Your task to perform on an android device: What is the recent news? Image 0: 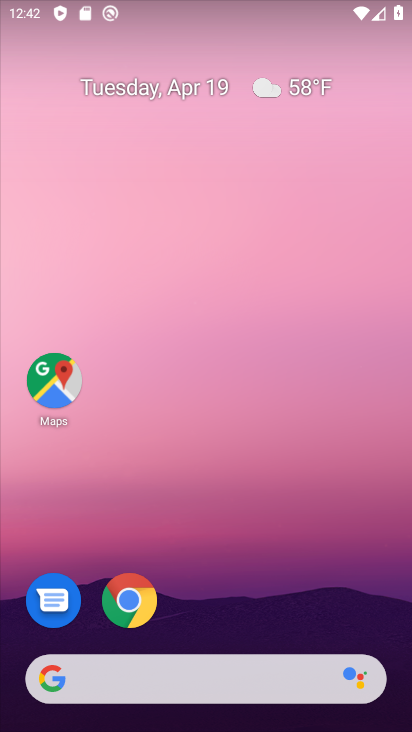
Step 0: click (132, 596)
Your task to perform on an android device: What is the recent news? Image 1: 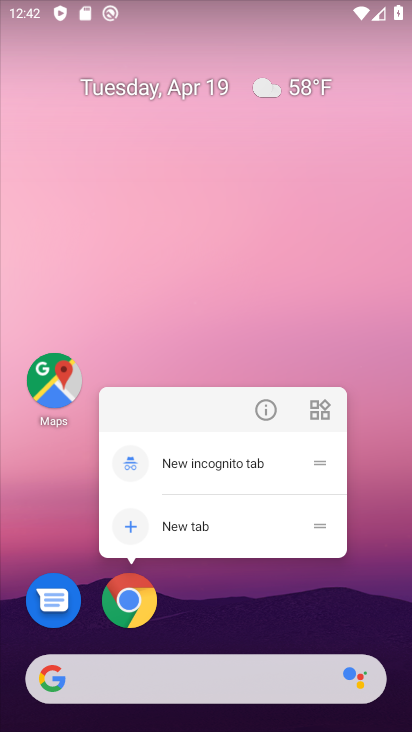
Step 1: drag from (392, 566) to (269, 154)
Your task to perform on an android device: What is the recent news? Image 2: 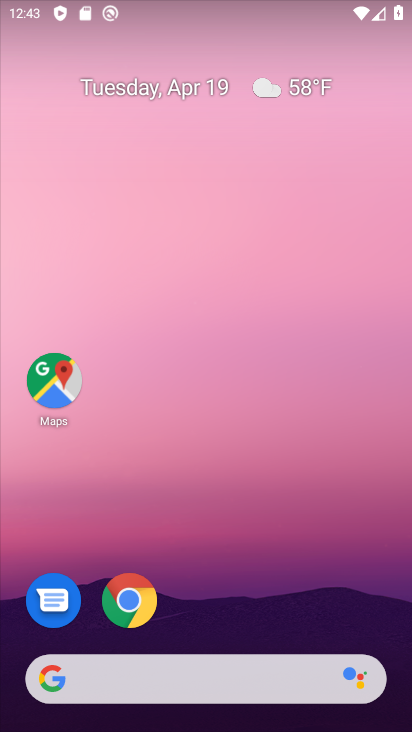
Step 2: drag from (344, 617) to (325, 150)
Your task to perform on an android device: What is the recent news? Image 3: 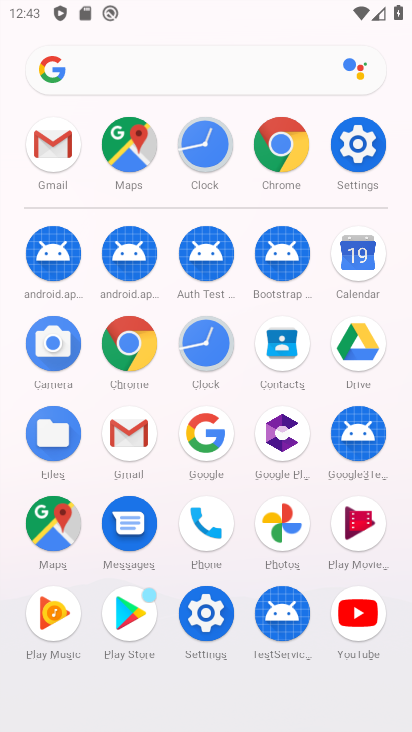
Step 3: click (284, 151)
Your task to perform on an android device: What is the recent news? Image 4: 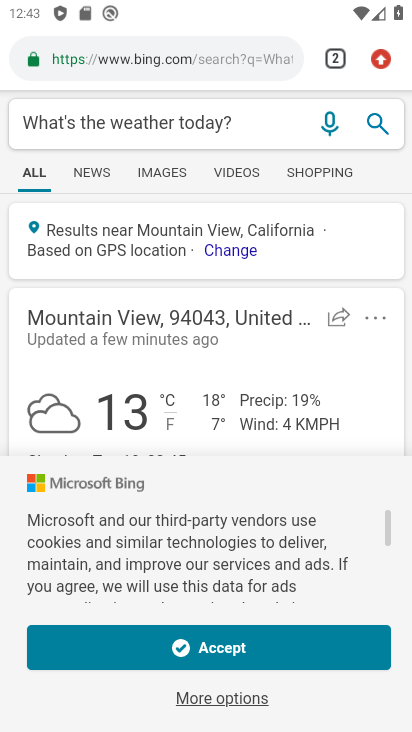
Step 4: click (257, 133)
Your task to perform on an android device: What is the recent news? Image 5: 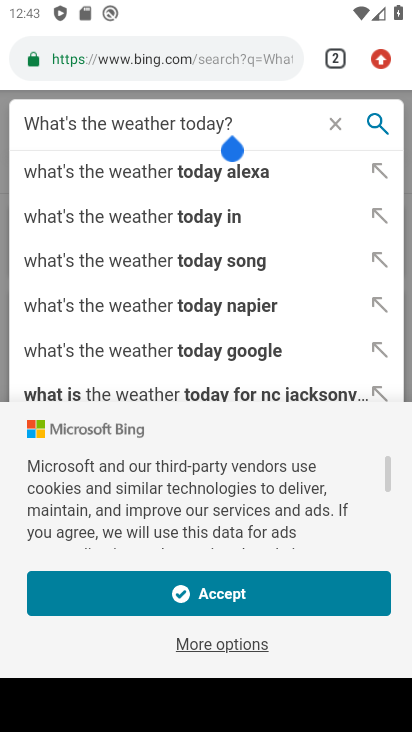
Step 5: click (335, 121)
Your task to perform on an android device: What is the recent news? Image 6: 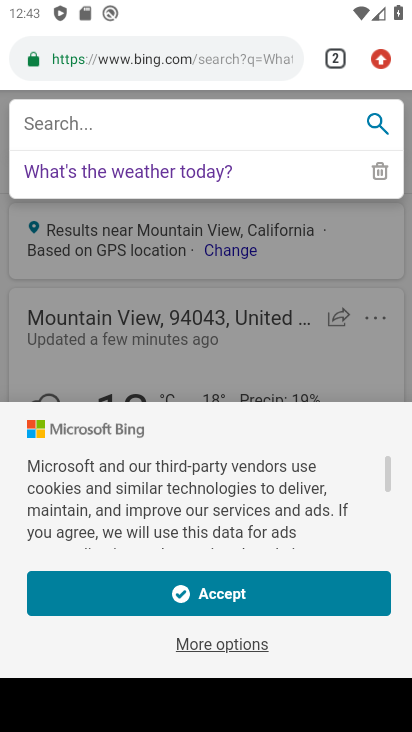
Step 6: type "What is the recent news?"
Your task to perform on an android device: What is the recent news? Image 7: 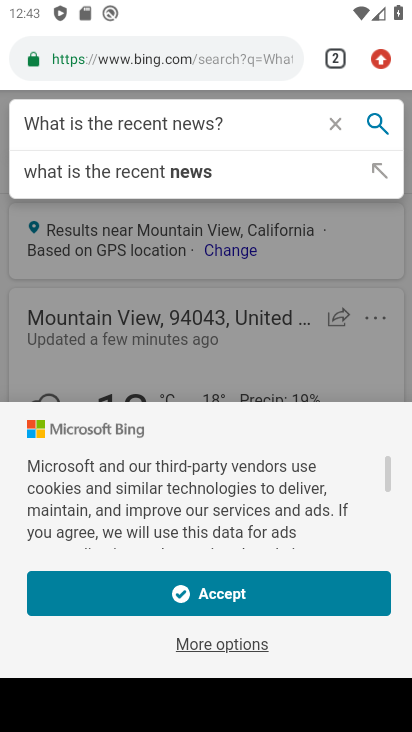
Step 7: click (191, 182)
Your task to perform on an android device: What is the recent news? Image 8: 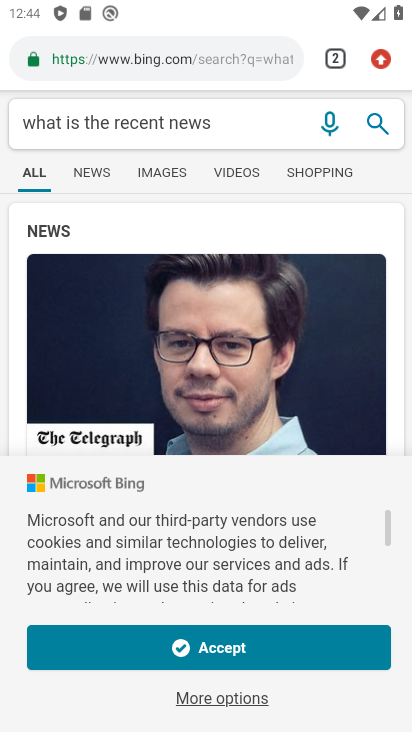
Step 8: task complete